Your task to perform on an android device: Open Yahoo.com Image 0: 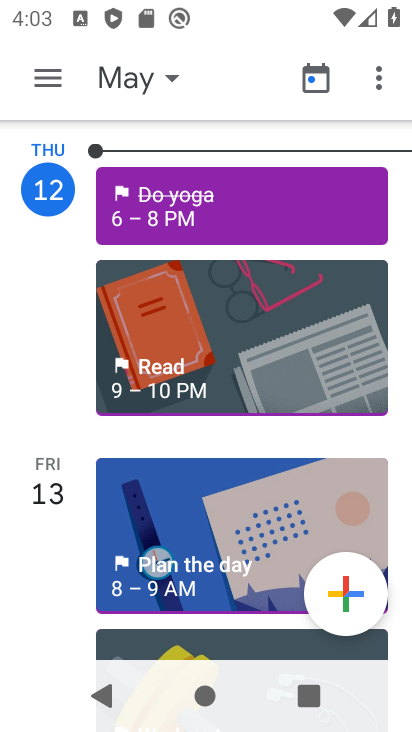
Step 0: press home button
Your task to perform on an android device: Open Yahoo.com Image 1: 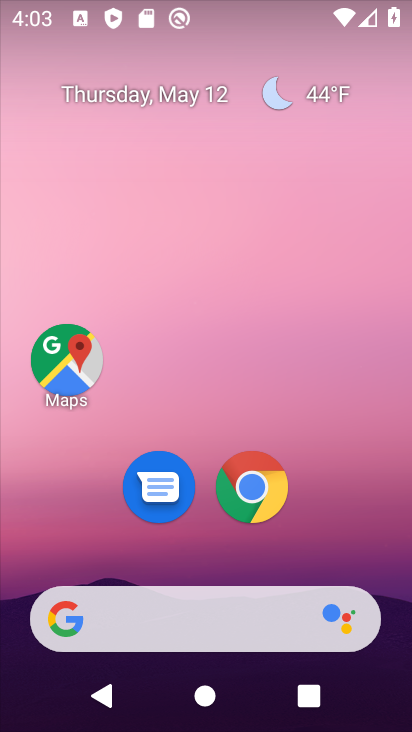
Step 1: click (255, 489)
Your task to perform on an android device: Open Yahoo.com Image 2: 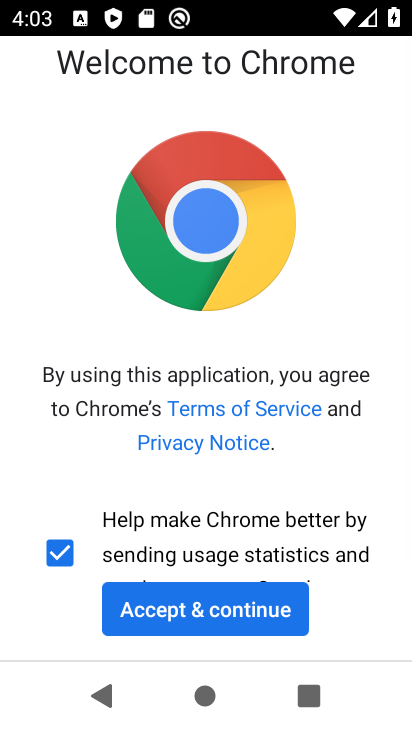
Step 2: click (262, 601)
Your task to perform on an android device: Open Yahoo.com Image 3: 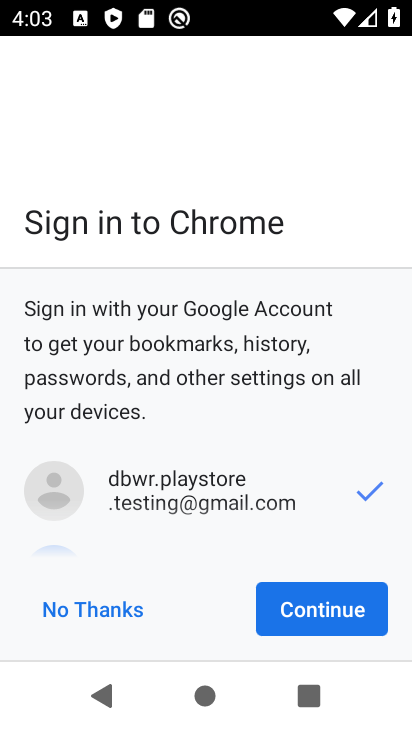
Step 3: click (316, 628)
Your task to perform on an android device: Open Yahoo.com Image 4: 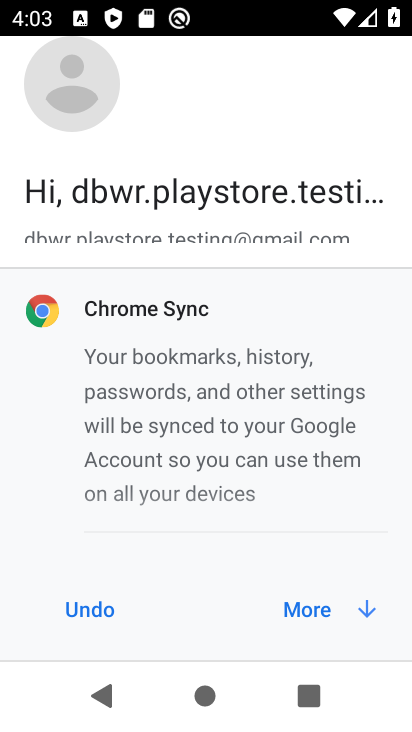
Step 4: click (316, 628)
Your task to perform on an android device: Open Yahoo.com Image 5: 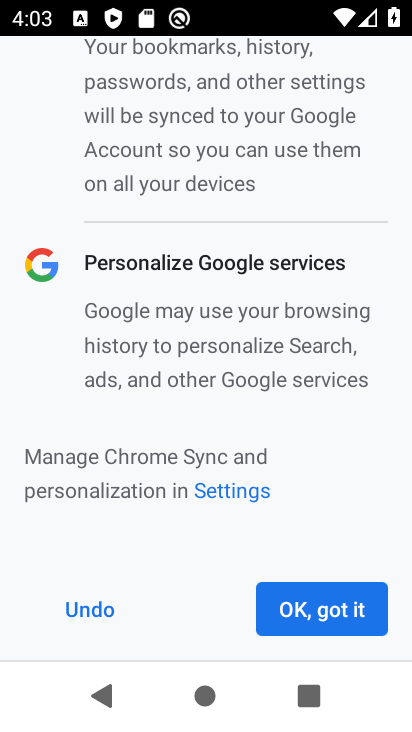
Step 5: click (316, 628)
Your task to perform on an android device: Open Yahoo.com Image 6: 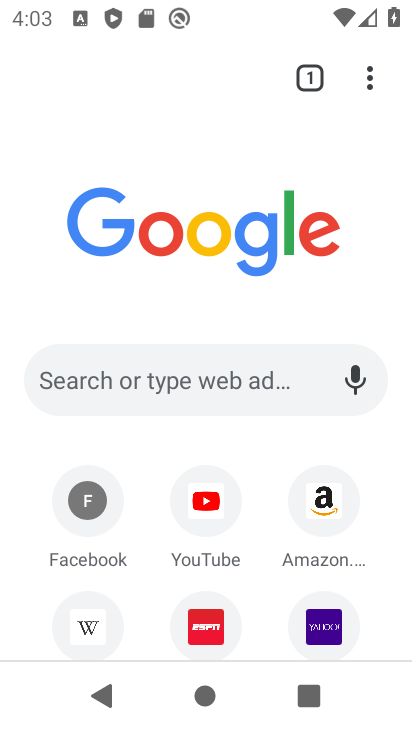
Step 6: drag from (276, 595) to (265, 280)
Your task to perform on an android device: Open Yahoo.com Image 7: 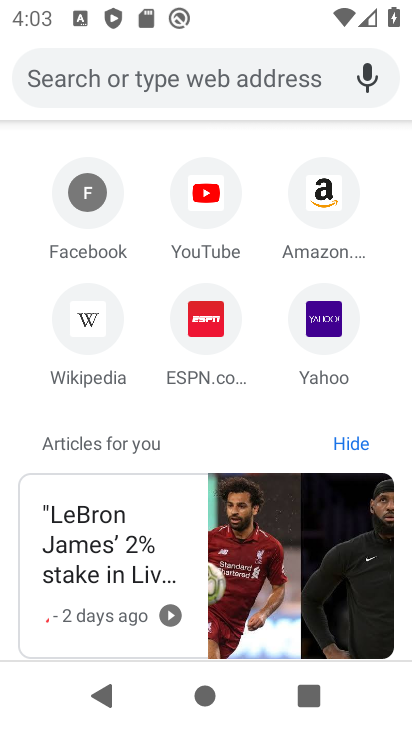
Step 7: click (312, 308)
Your task to perform on an android device: Open Yahoo.com Image 8: 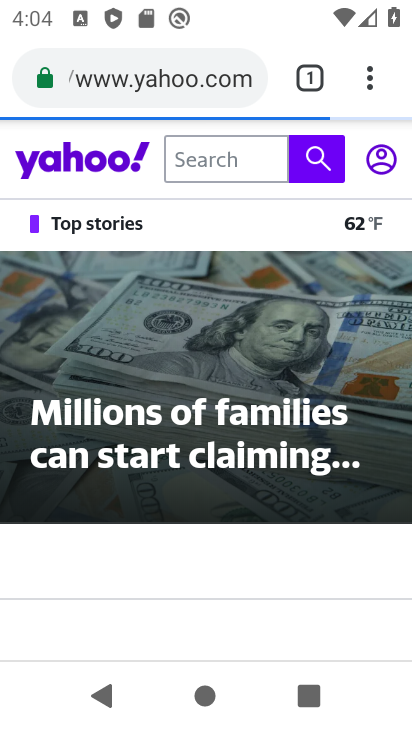
Step 8: task complete